Your task to perform on an android device: open wifi settings Image 0: 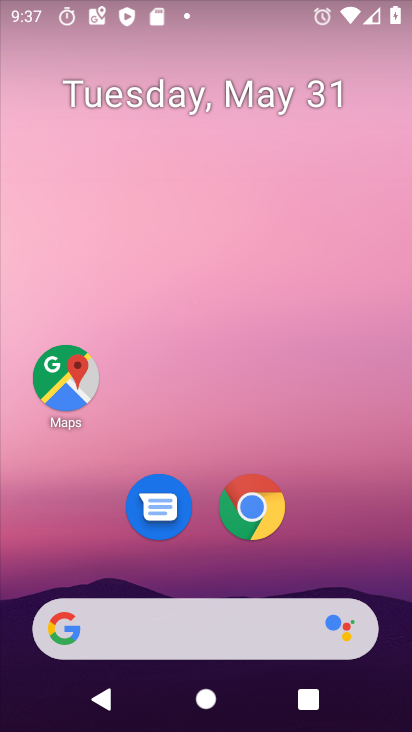
Step 0: drag from (334, 578) to (288, 0)
Your task to perform on an android device: open wifi settings Image 1: 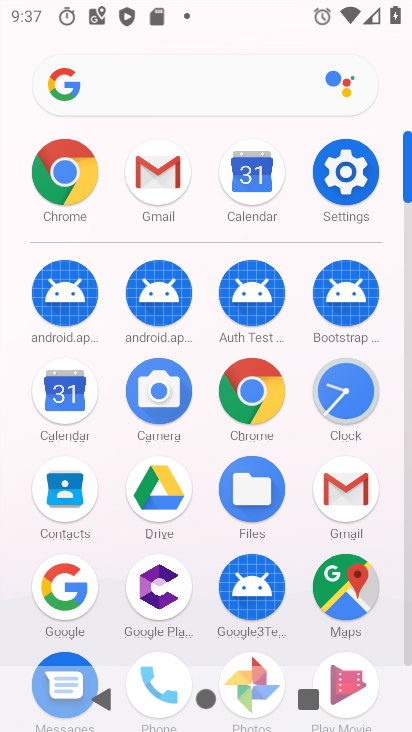
Step 1: click (336, 164)
Your task to perform on an android device: open wifi settings Image 2: 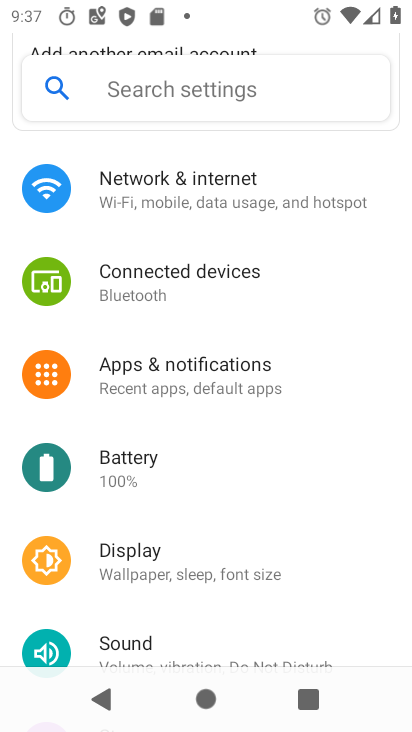
Step 2: click (190, 191)
Your task to perform on an android device: open wifi settings Image 3: 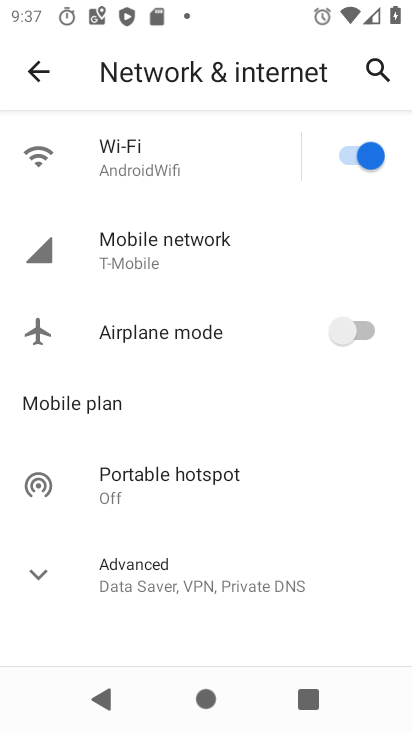
Step 3: click (55, 159)
Your task to perform on an android device: open wifi settings Image 4: 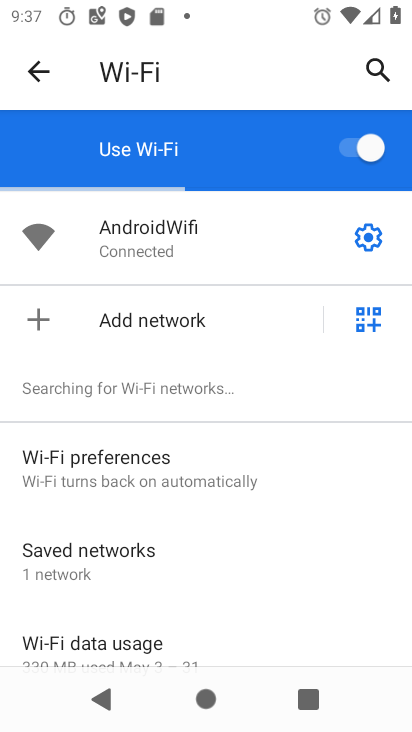
Step 4: task complete